Your task to perform on an android device: Open Yahoo.com Image 0: 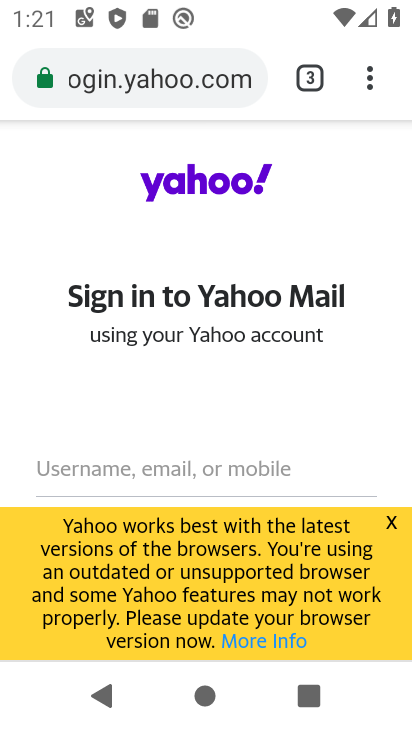
Step 0: task complete